Your task to perform on an android device: turn off improve location accuracy Image 0: 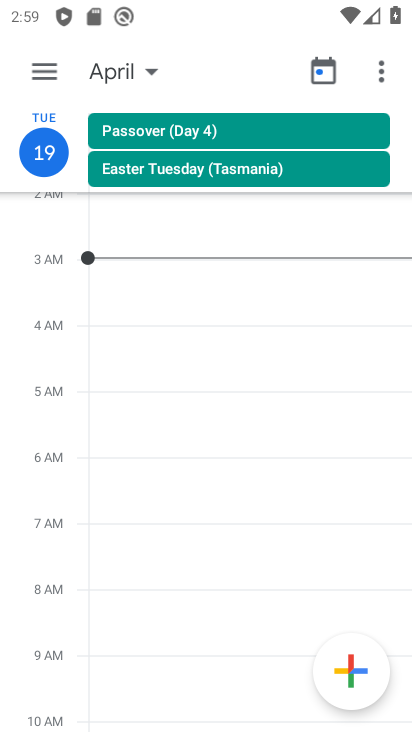
Step 0: press home button
Your task to perform on an android device: turn off improve location accuracy Image 1: 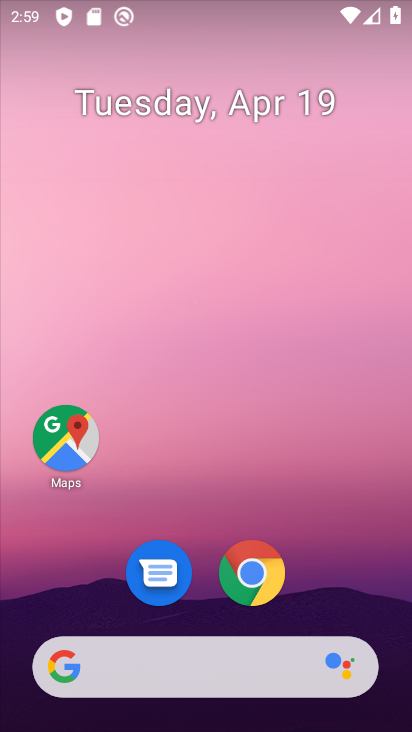
Step 1: drag from (315, 509) to (290, 171)
Your task to perform on an android device: turn off improve location accuracy Image 2: 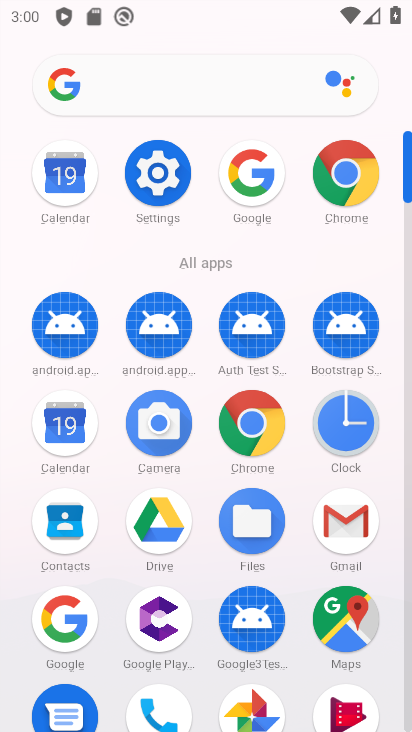
Step 2: drag from (300, 644) to (290, 295)
Your task to perform on an android device: turn off improve location accuracy Image 3: 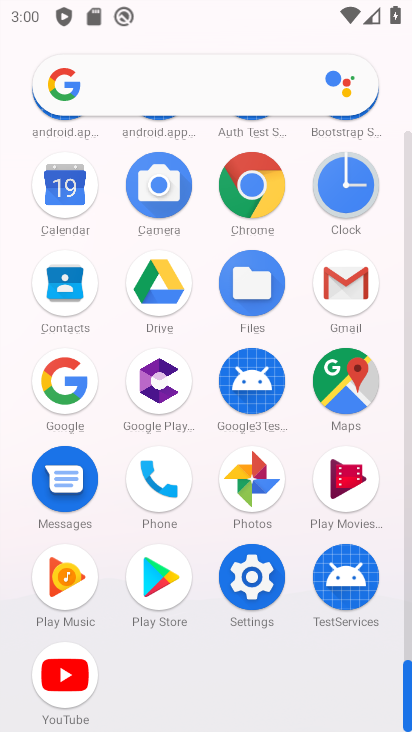
Step 3: click (250, 596)
Your task to perform on an android device: turn off improve location accuracy Image 4: 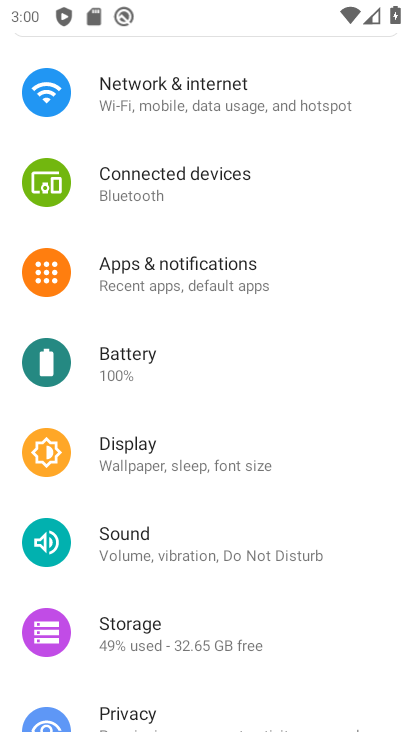
Step 4: drag from (238, 325) to (264, 239)
Your task to perform on an android device: turn off improve location accuracy Image 5: 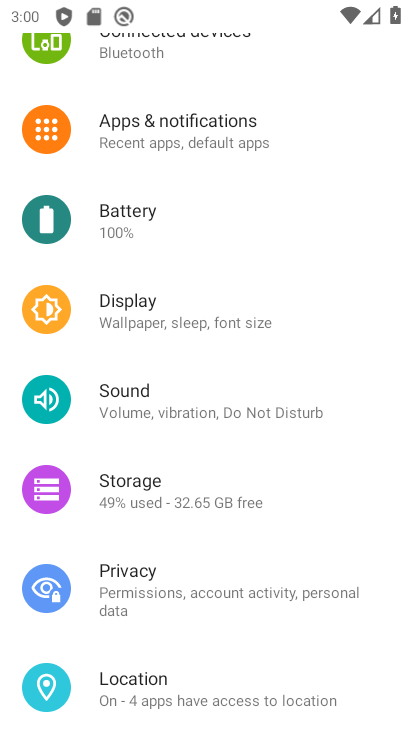
Step 5: click (147, 703)
Your task to perform on an android device: turn off improve location accuracy Image 6: 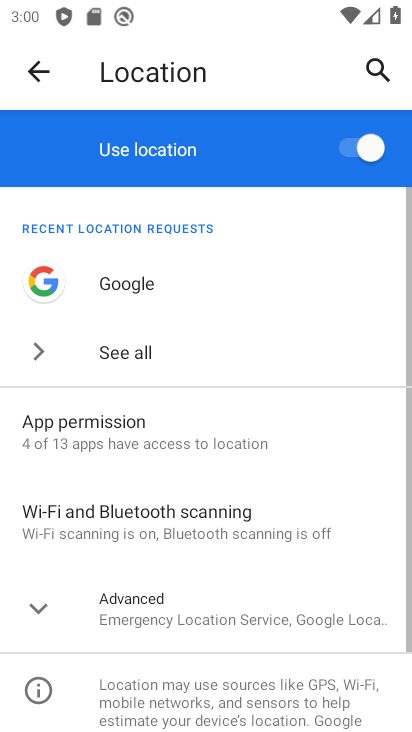
Step 6: drag from (248, 579) to (279, 288)
Your task to perform on an android device: turn off improve location accuracy Image 7: 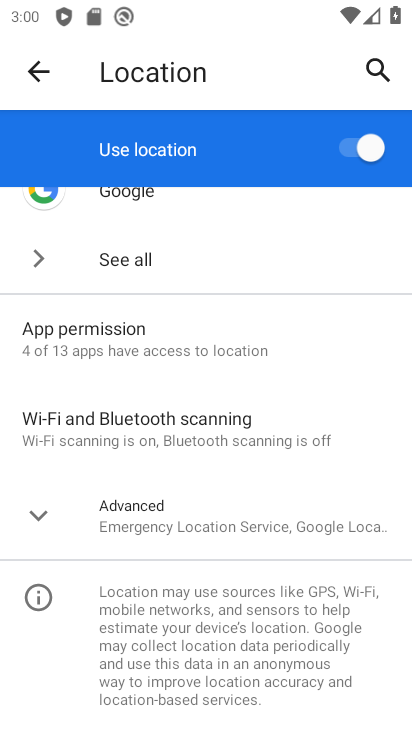
Step 7: click (42, 518)
Your task to perform on an android device: turn off improve location accuracy Image 8: 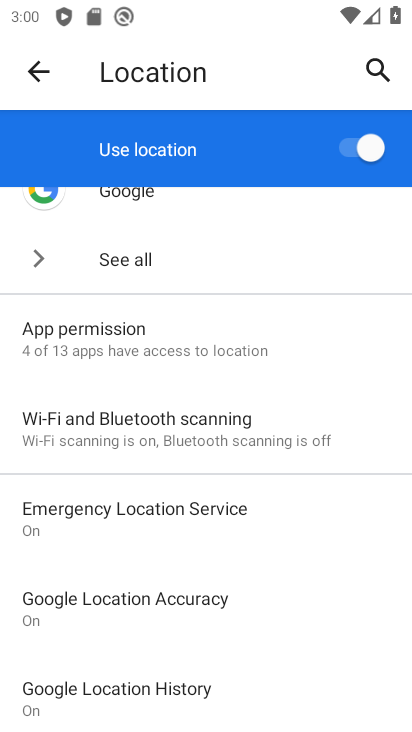
Step 8: drag from (252, 681) to (263, 474)
Your task to perform on an android device: turn off improve location accuracy Image 9: 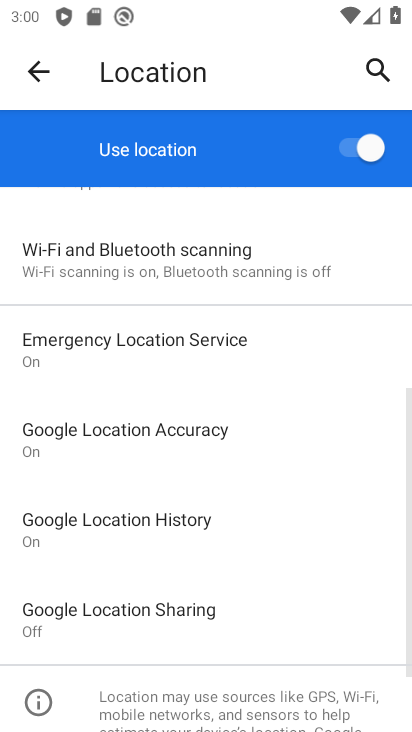
Step 9: click (172, 442)
Your task to perform on an android device: turn off improve location accuracy Image 10: 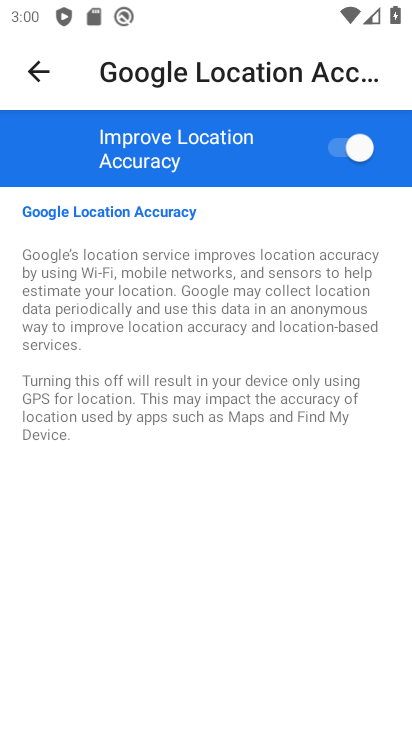
Step 10: click (360, 146)
Your task to perform on an android device: turn off improve location accuracy Image 11: 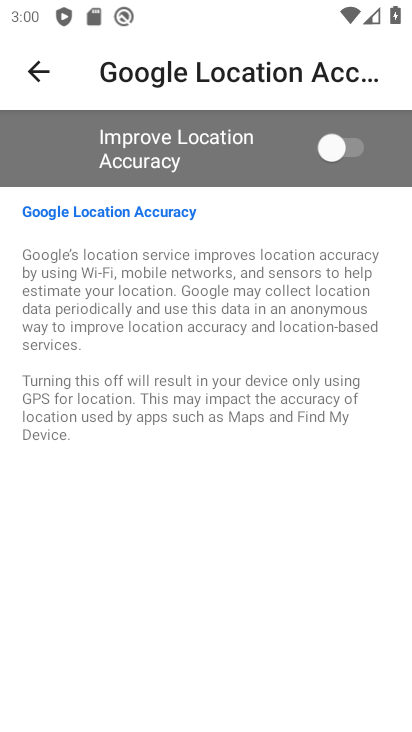
Step 11: task complete